Your task to perform on an android device: install app "Calculator" Image 0: 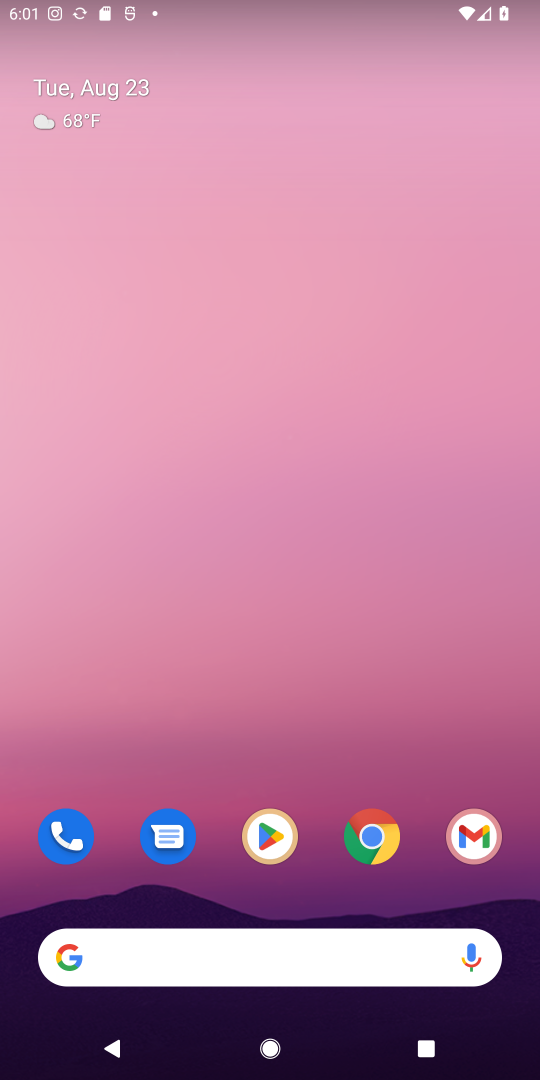
Step 0: click (275, 836)
Your task to perform on an android device: install app "Calculator" Image 1: 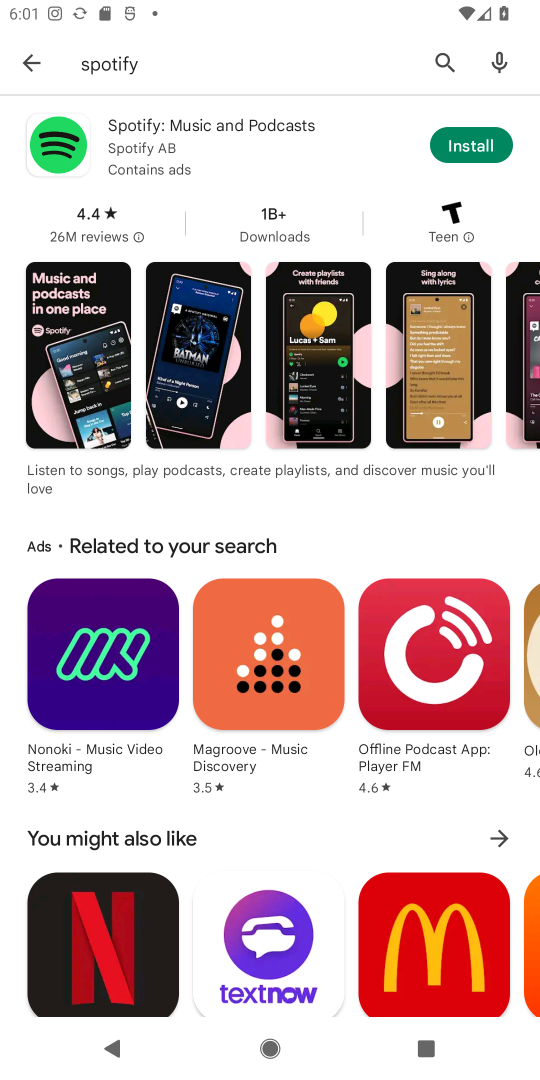
Step 1: click (438, 58)
Your task to perform on an android device: install app "Calculator" Image 2: 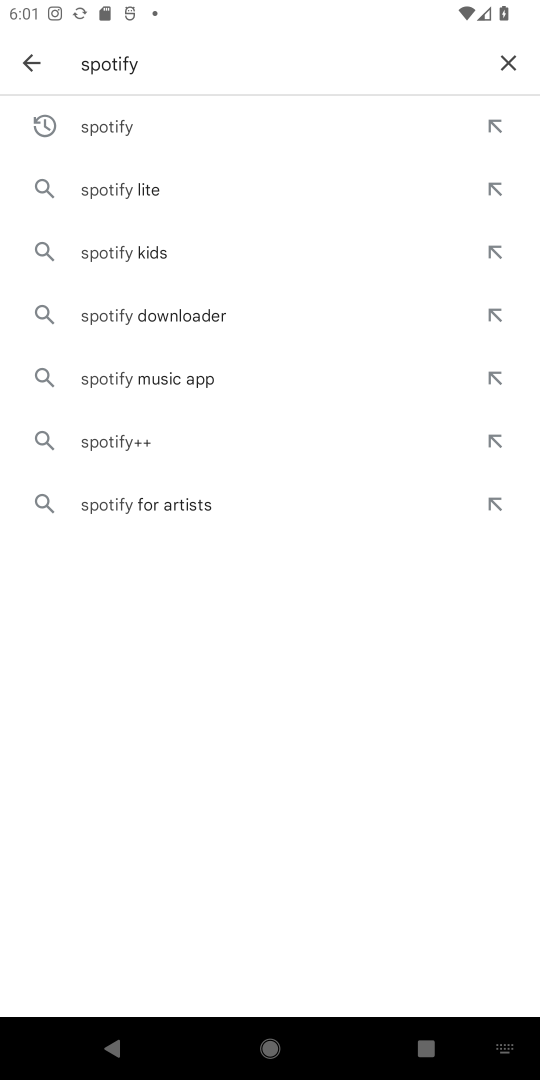
Step 2: click (510, 66)
Your task to perform on an android device: install app "Calculator" Image 3: 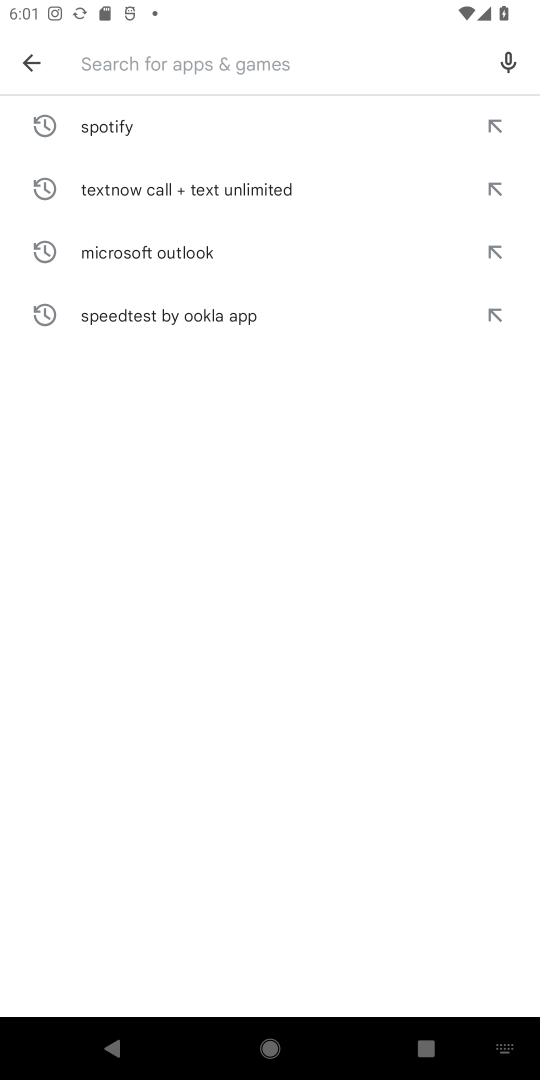
Step 3: type "Calculator"
Your task to perform on an android device: install app "Calculator" Image 4: 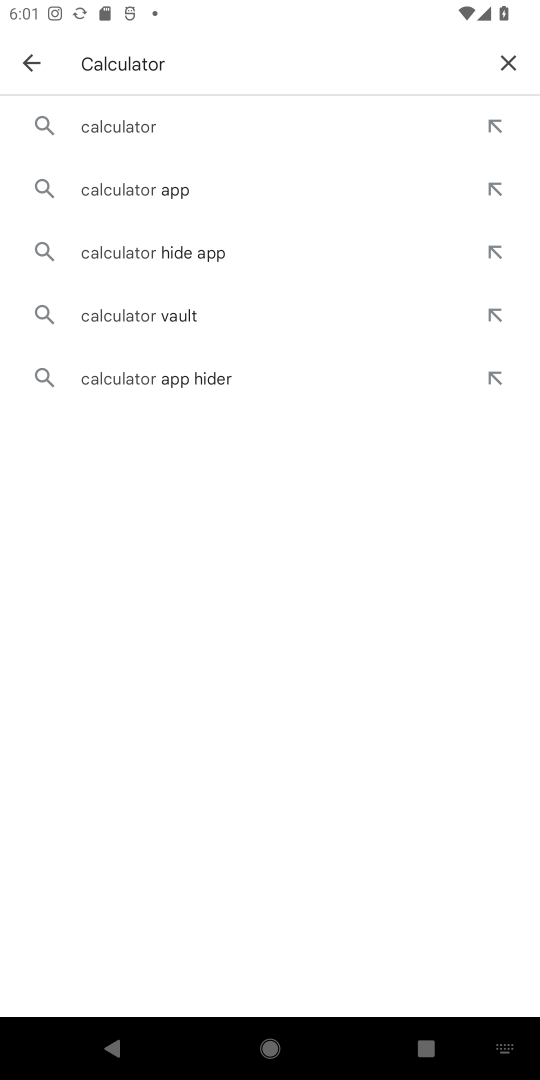
Step 4: click (113, 117)
Your task to perform on an android device: install app "Calculator" Image 5: 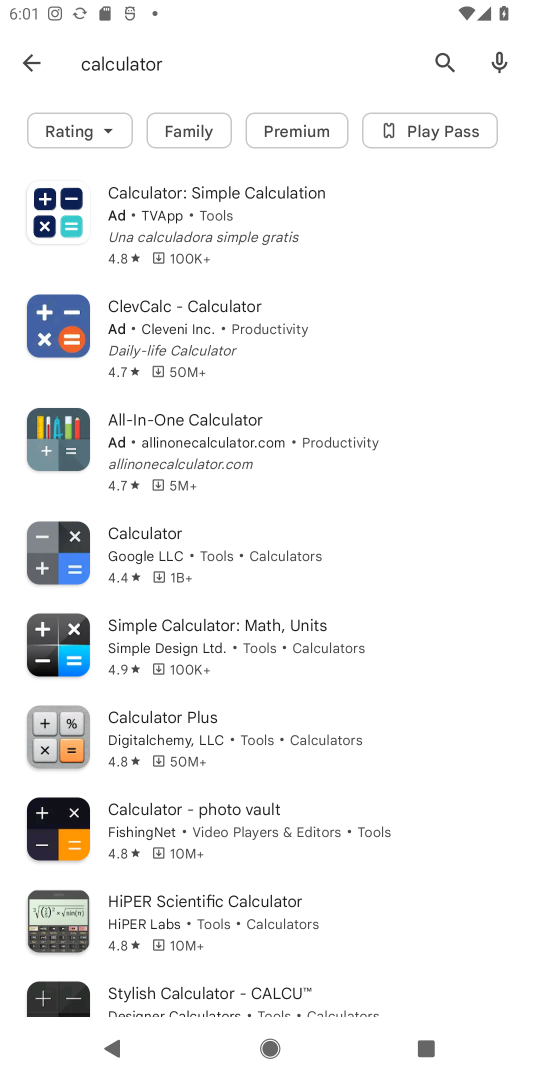
Step 5: click (140, 539)
Your task to perform on an android device: install app "Calculator" Image 6: 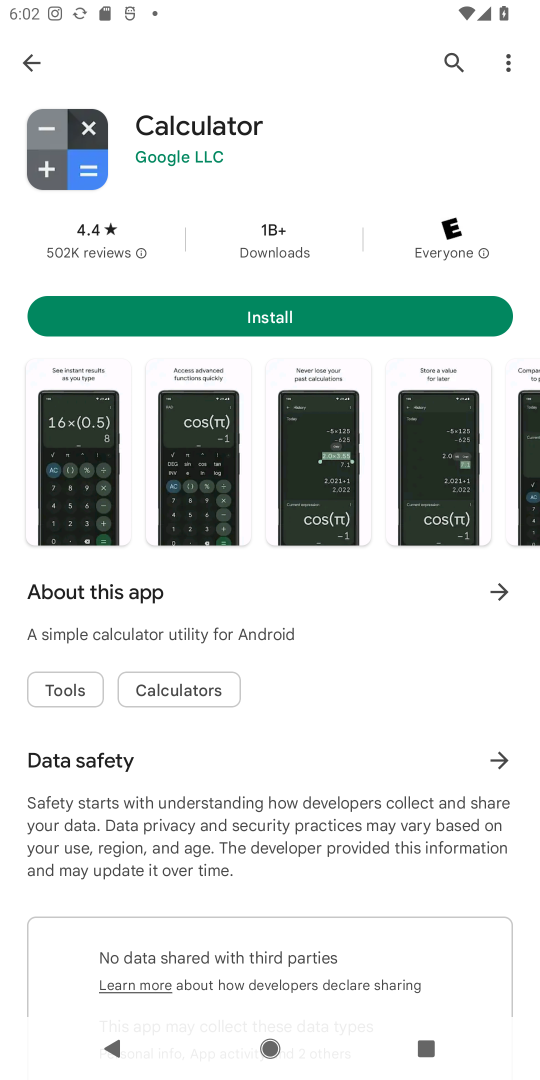
Step 6: click (267, 310)
Your task to perform on an android device: install app "Calculator" Image 7: 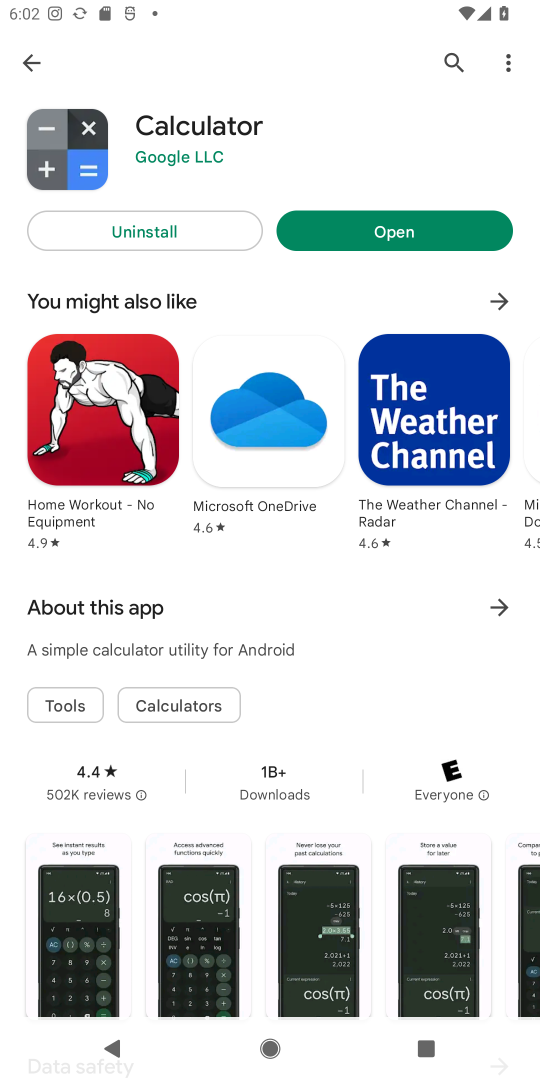
Step 7: task complete